Your task to perform on an android device: Go to internet settings Image 0: 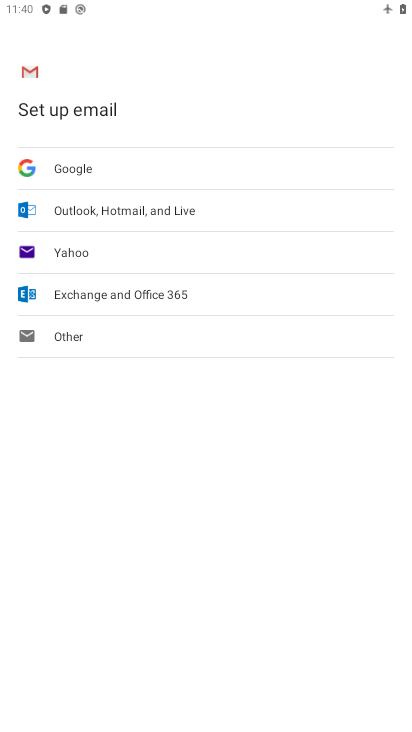
Step 0: press home button
Your task to perform on an android device: Go to internet settings Image 1: 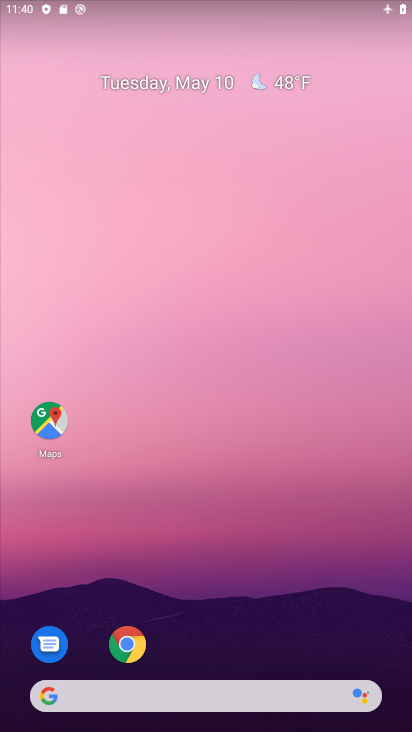
Step 1: drag from (197, 592) to (316, 113)
Your task to perform on an android device: Go to internet settings Image 2: 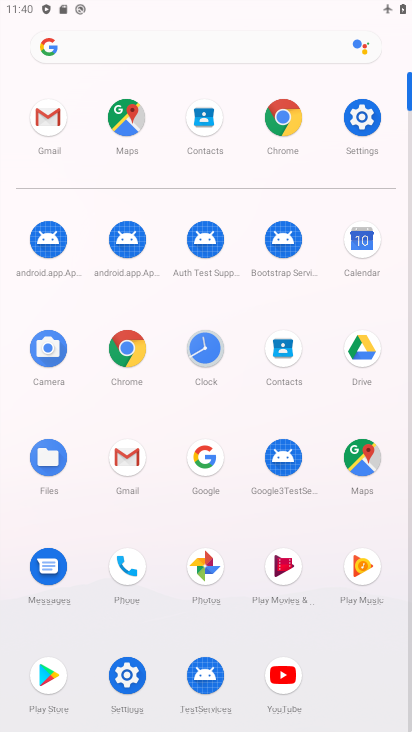
Step 2: click (360, 132)
Your task to perform on an android device: Go to internet settings Image 3: 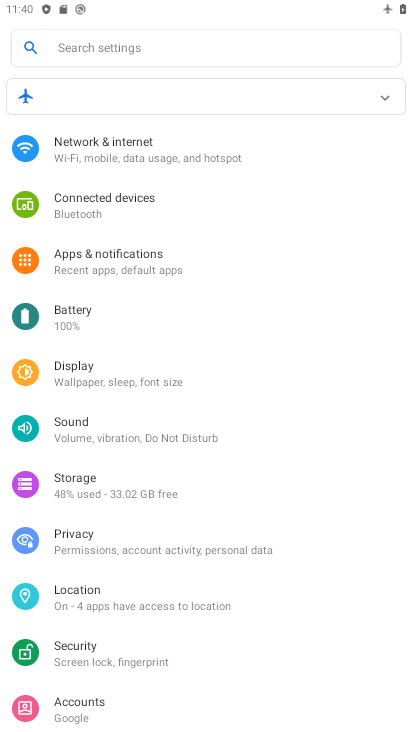
Step 3: click (149, 165)
Your task to perform on an android device: Go to internet settings Image 4: 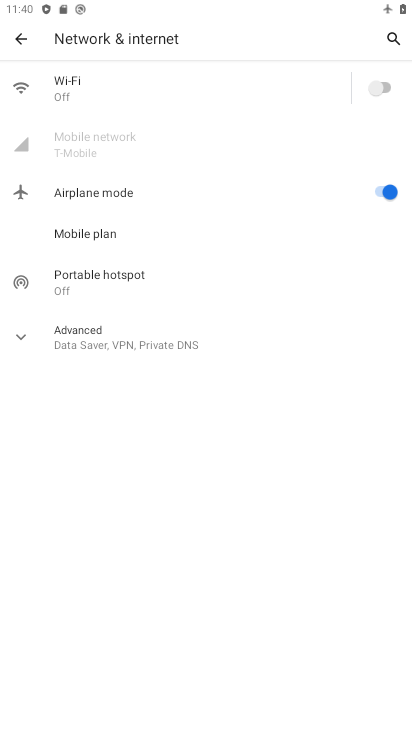
Step 4: task complete